Your task to perform on an android device: Open calendar and show me the fourth week of next month Image 0: 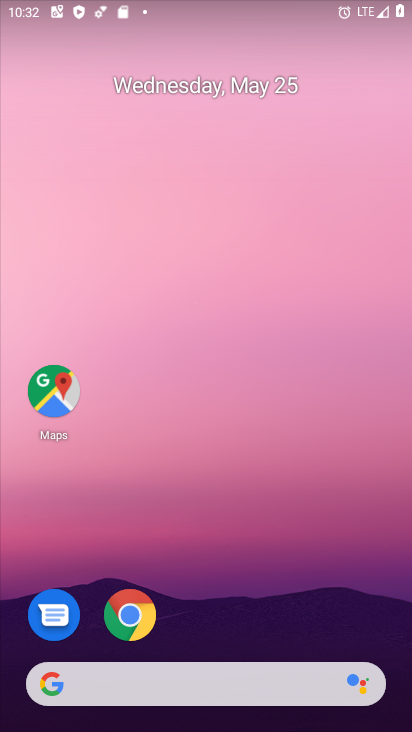
Step 0: drag from (244, 607) to (228, 10)
Your task to perform on an android device: Open calendar and show me the fourth week of next month Image 1: 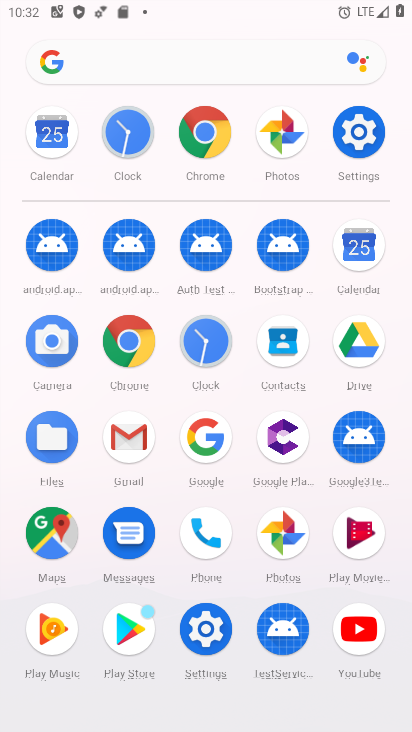
Step 1: click (354, 246)
Your task to perform on an android device: Open calendar and show me the fourth week of next month Image 2: 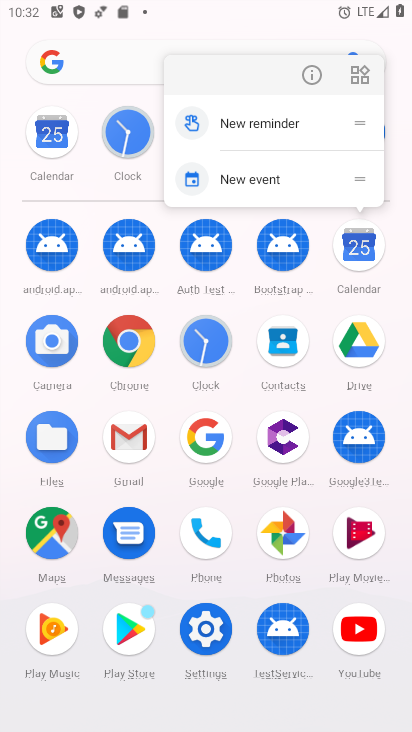
Step 2: click (360, 252)
Your task to perform on an android device: Open calendar and show me the fourth week of next month Image 3: 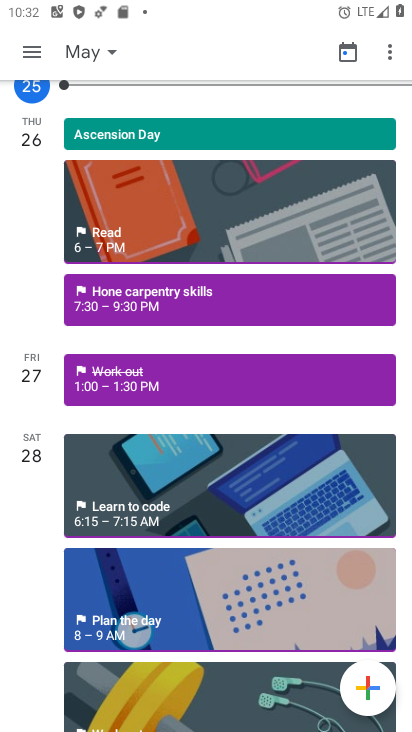
Step 3: click (35, 51)
Your task to perform on an android device: Open calendar and show me the fourth week of next month Image 4: 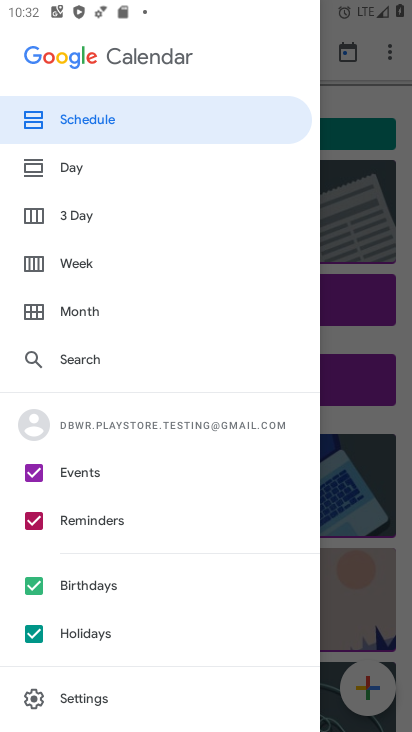
Step 4: click (34, 300)
Your task to perform on an android device: Open calendar and show me the fourth week of next month Image 5: 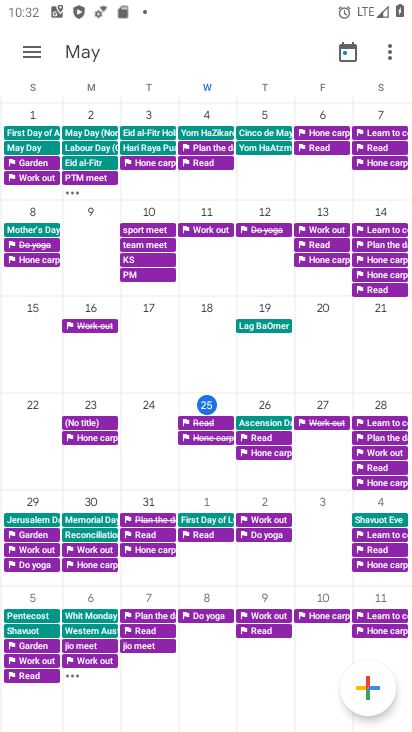
Step 5: drag from (369, 348) to (0, 361)
Your task to perform on an android device: Open calendar and show me the fourth week of next month Image 6: 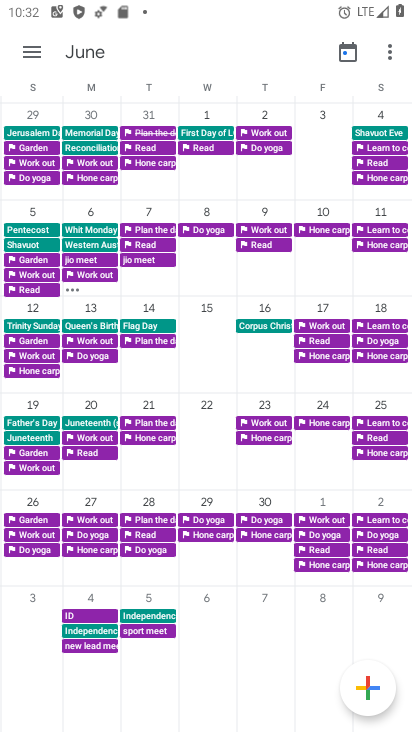
Step 6: click (37, 502)
Your task to perform on an android device: Open calendar and show me the fourth week of next month Image 7: 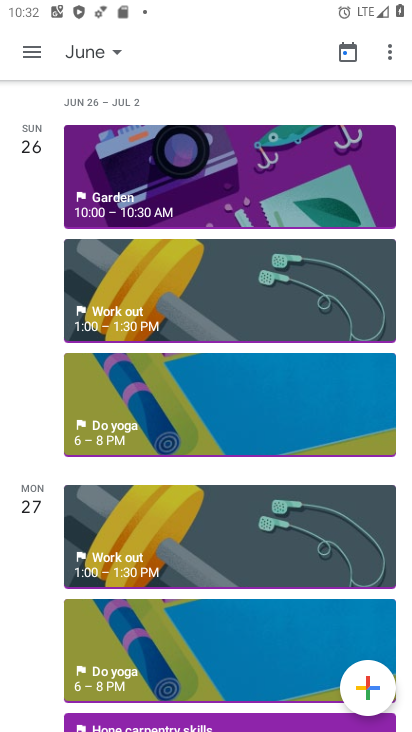
Step 7: click (28, 54)
Your task to perform on an android device: Open calendar and show me the fourth week of next month Image 8: 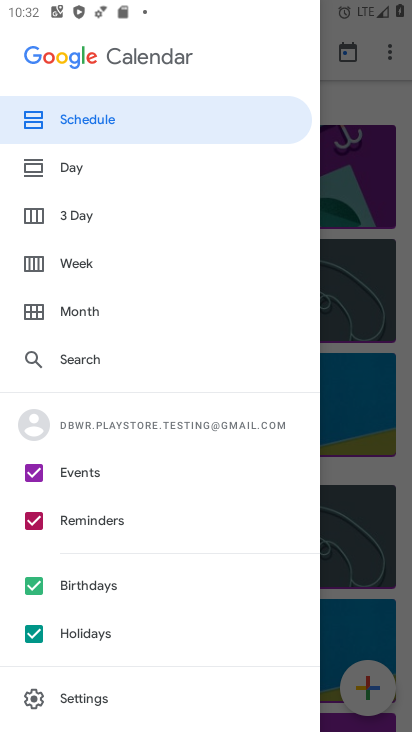
Step 8: click (47, 256)
Your task to perform on an android device: Open calendar and show me the fourth week of next month Image 9: 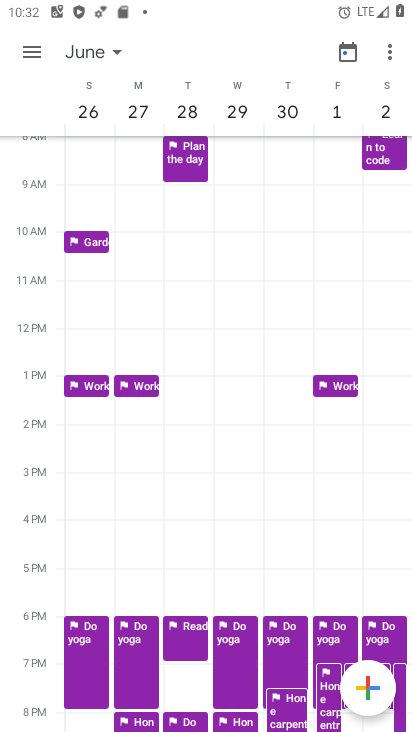
Step 9: task complete